Your task to perform on an android device: turn off airplane mode Image 0: 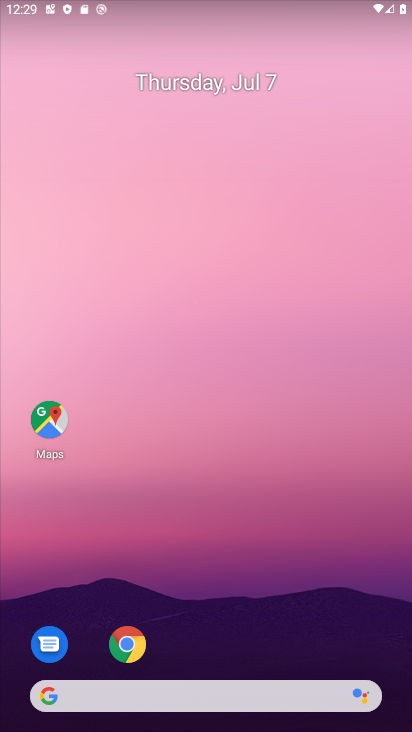
Step 0: drag from (242, 0) to (208, 396)
Your task to perform on an android device: turn off airplane mode Image 1: 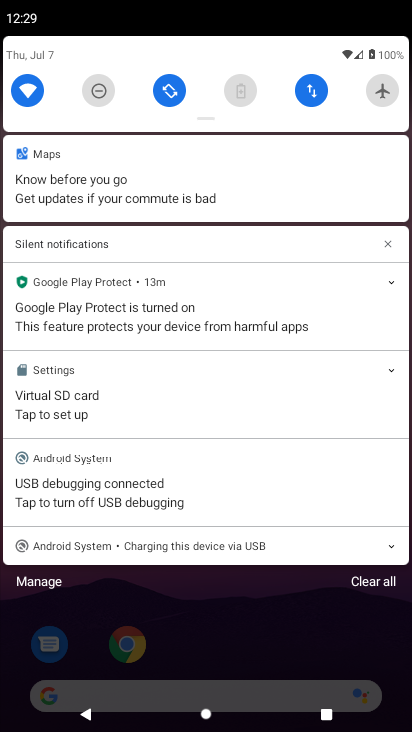
Step 1: task complete